Your task to perform on an android device: What's on my calendar today? Image 0: 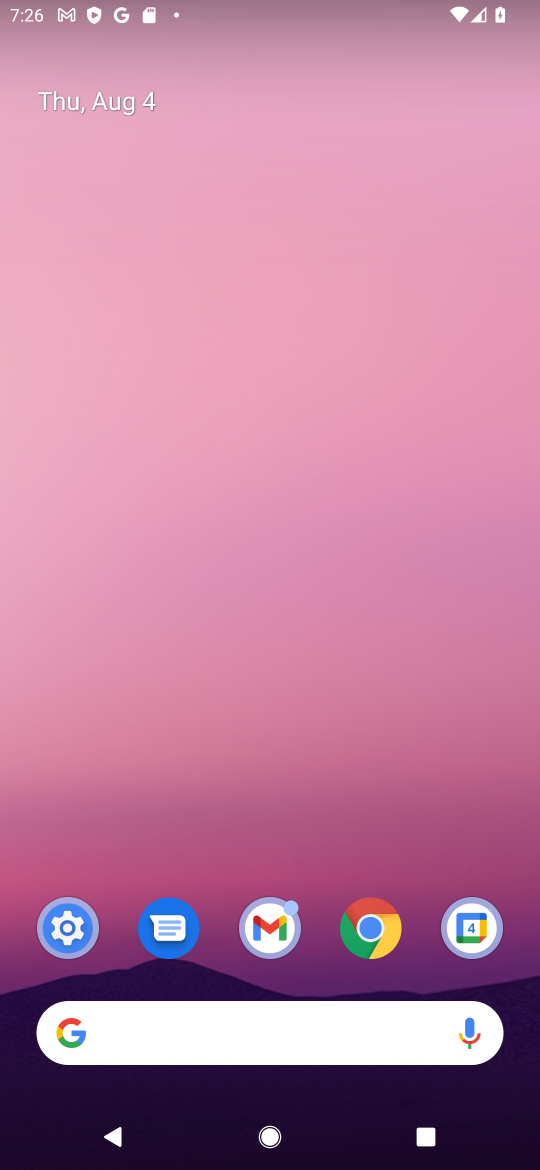
Step 0: drag from (223, 970) to (217, 146)
Your task to perform on an android device: What's on my calendar today? Image 1: 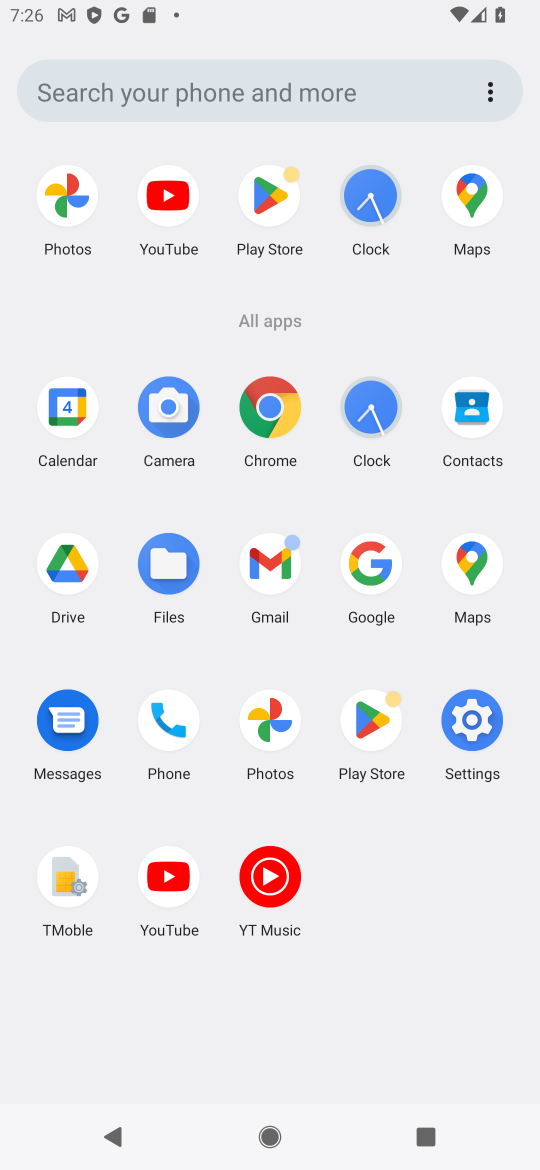
Step 1: click (57, 413)
Your task to perform on an android device: What's on my calendar today? Image 2: 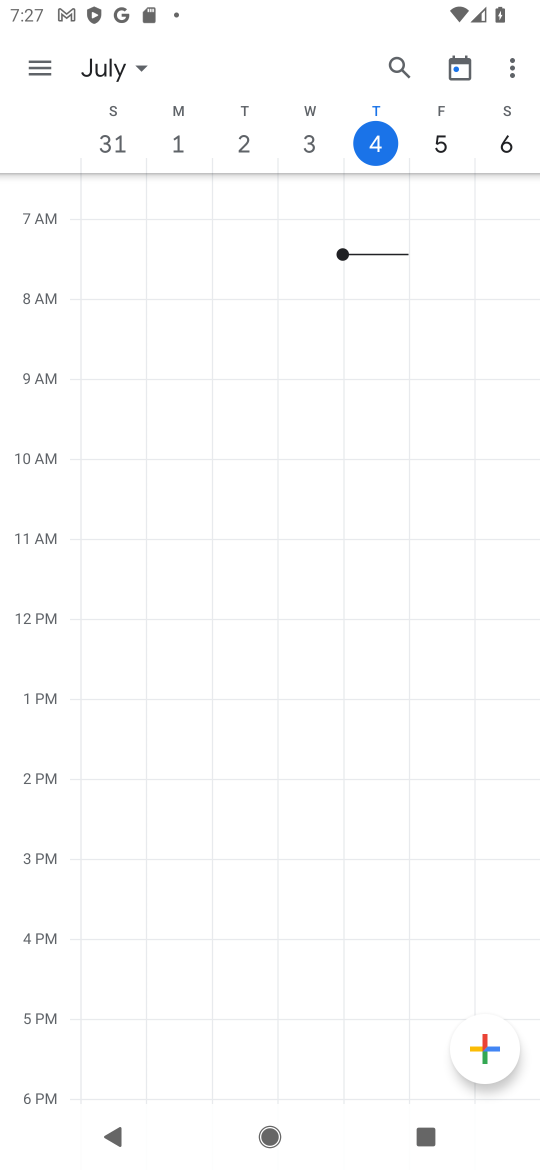
Step 2: click (41, 60)
Your task to perform on an android device: What's on my calendar today? Image 3: 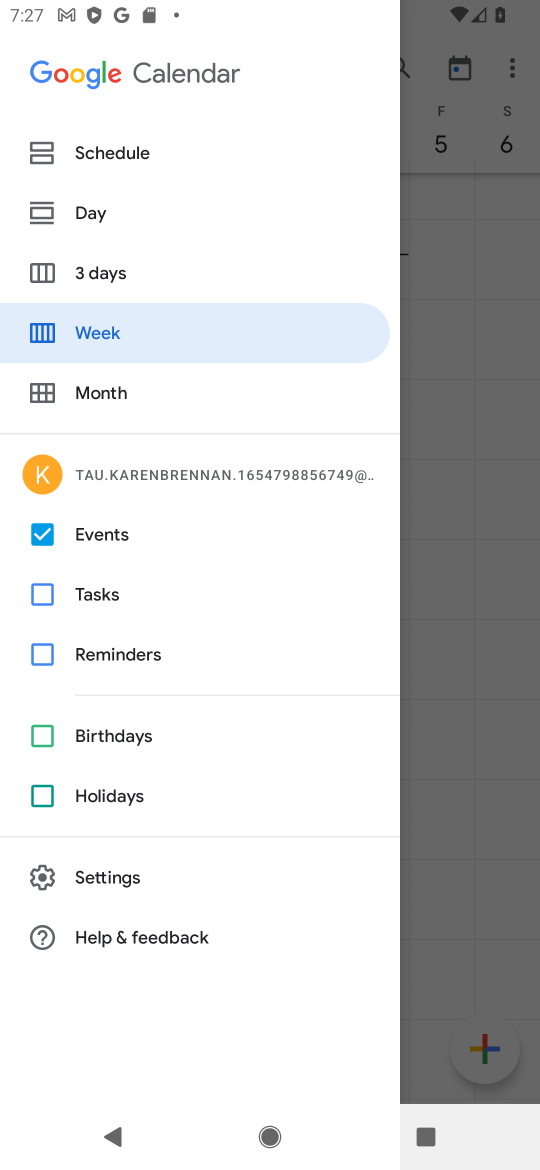
Step 3: click (81, 204)
Your task to perform on an android device: What's on my calendar today? Image 4: 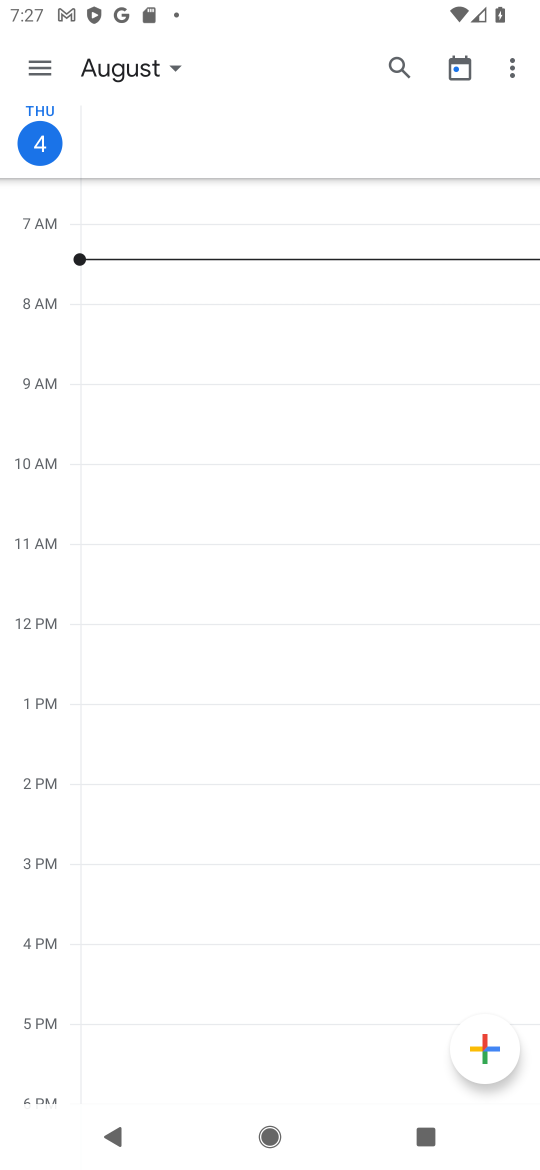
Step 4: task complete